Your task to perform on an android device: change the clock display to show seconds Image 0: 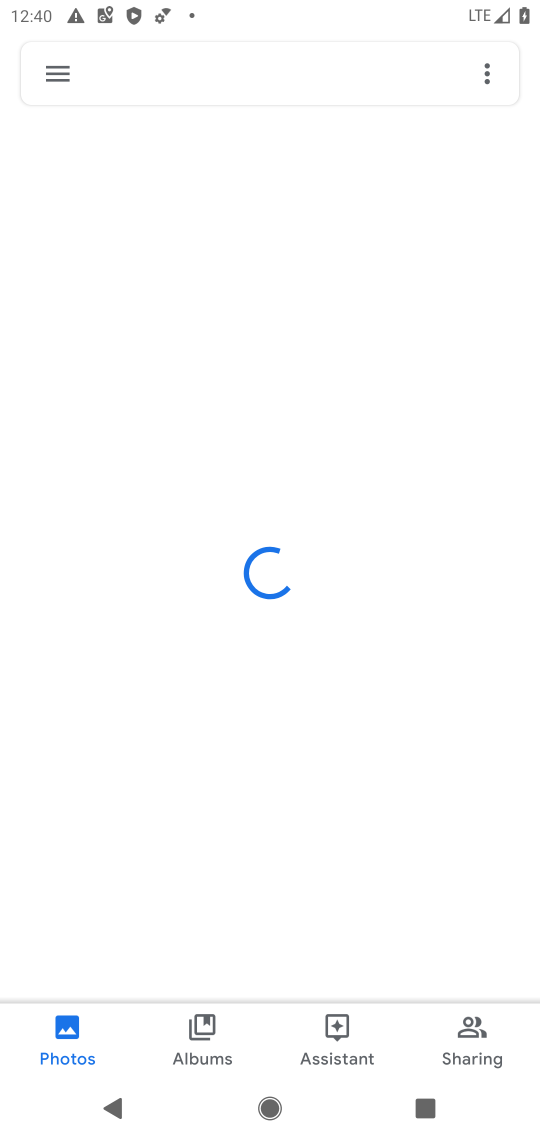
Step 0: press home button
Your task to perform on an android device: change the clock display to show seconds Image 1: 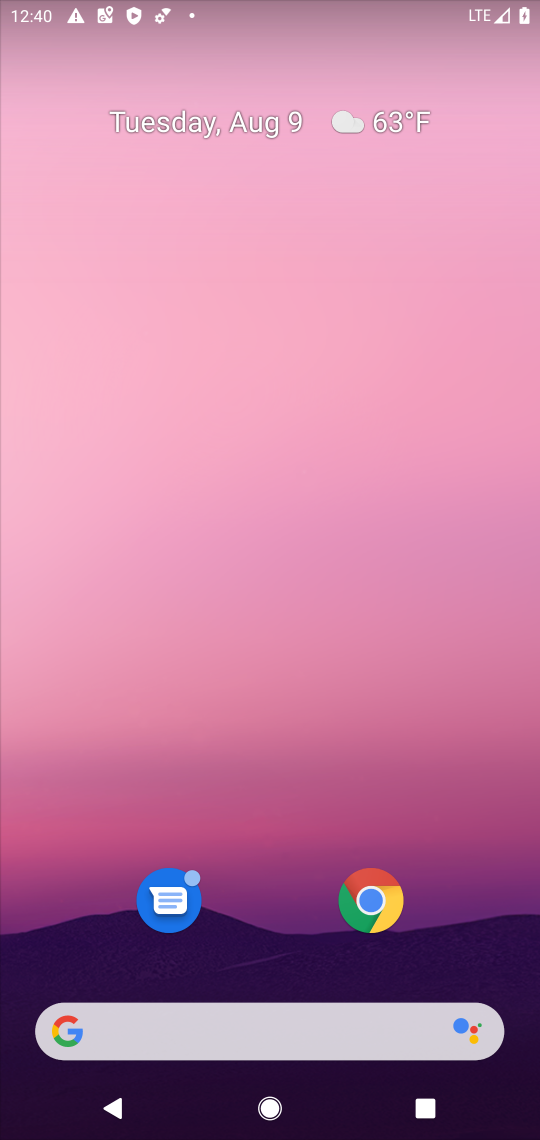
Step 1: drag from (459, 926) to (472, 235)
Your task to perform on an android device: change the clock display to show seconds Image 2: 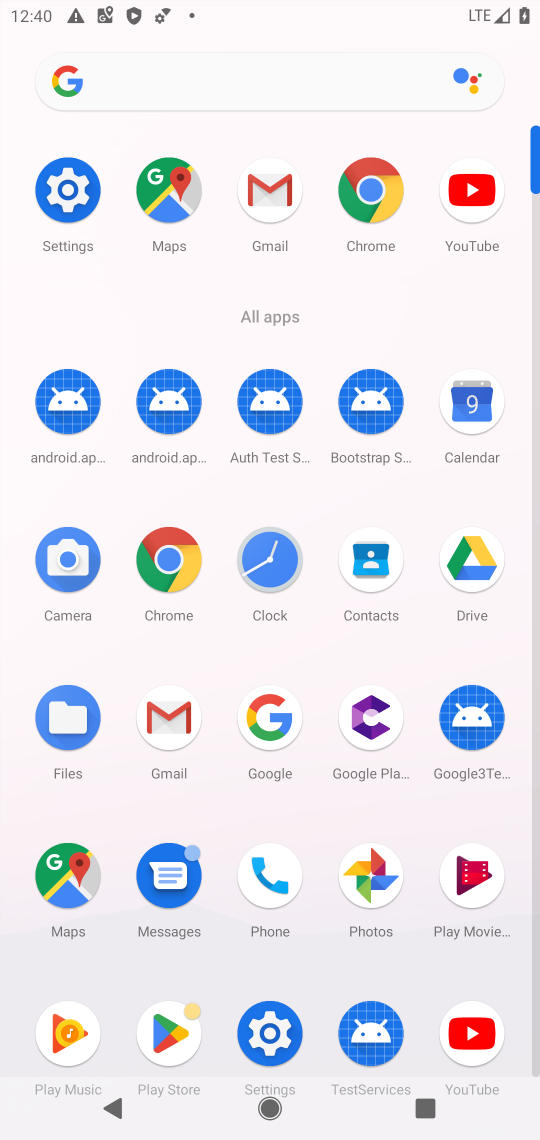
Step 2: click (272, 562)
Your task to perform on an android device: change the clock display to show seconds Image 3: 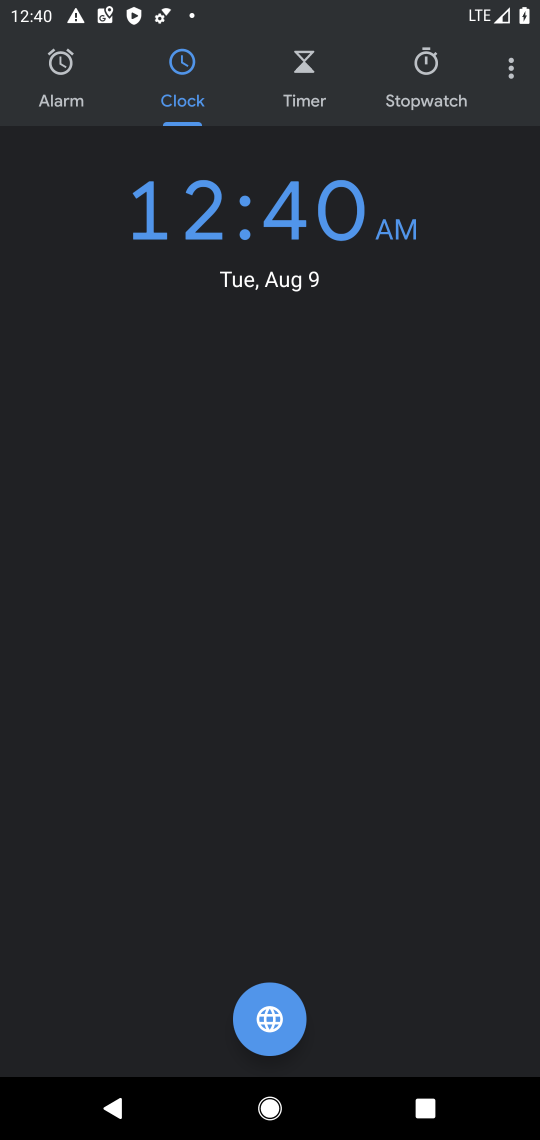
Step 3: click (513, 76)
Your task to perform on an android device: change the clock display to show seconds Image 4: 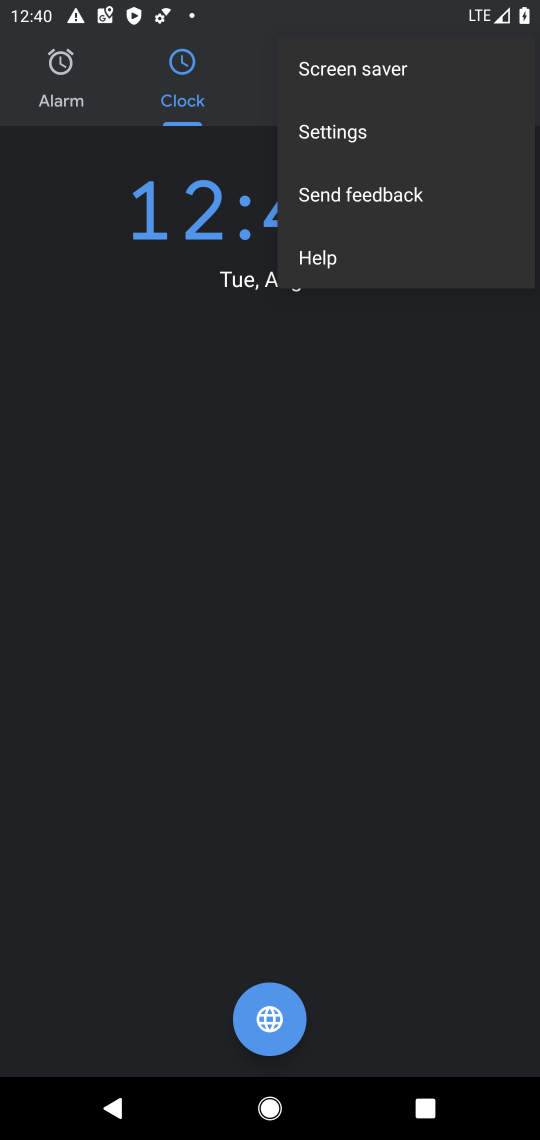
Step 4: click (382, 138)
Your task to perform on an android device: change the clock display to show seconds Image 5: 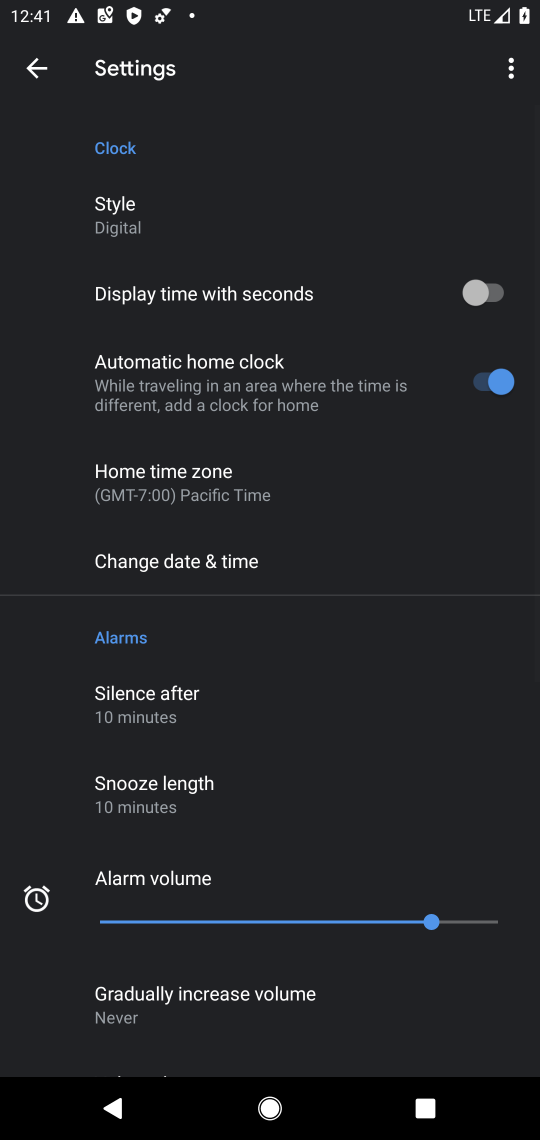
Step 5: drag from (407, 703) to (417, 402)
Your task to perform on an android device: change the clock display to show seconds Image 6: 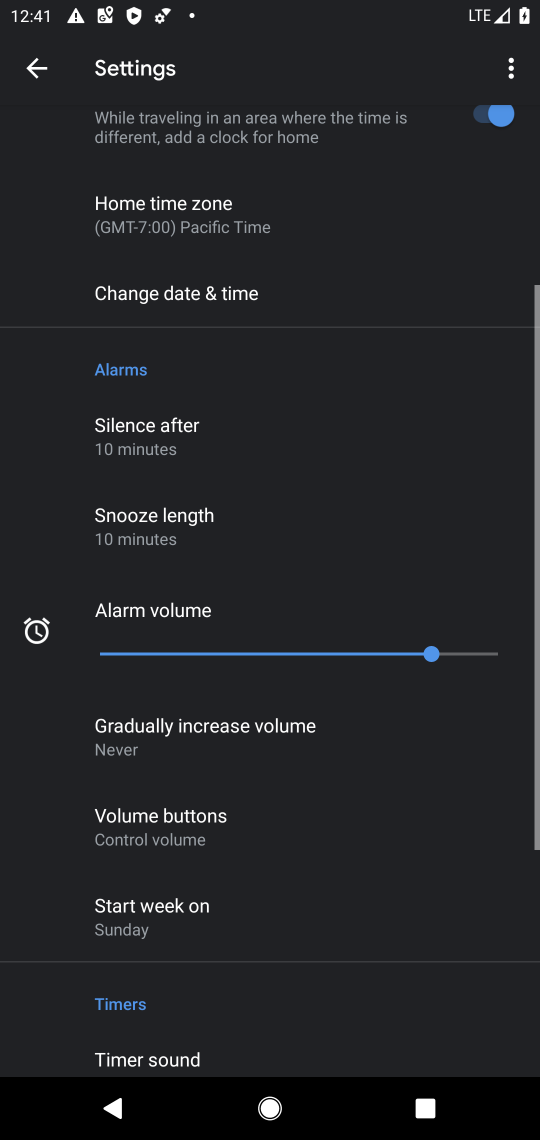
Step 6: drag from (419, 827) to (447, 530)
Your task to perform on an android device: change the clock display to show seconds Image 7: 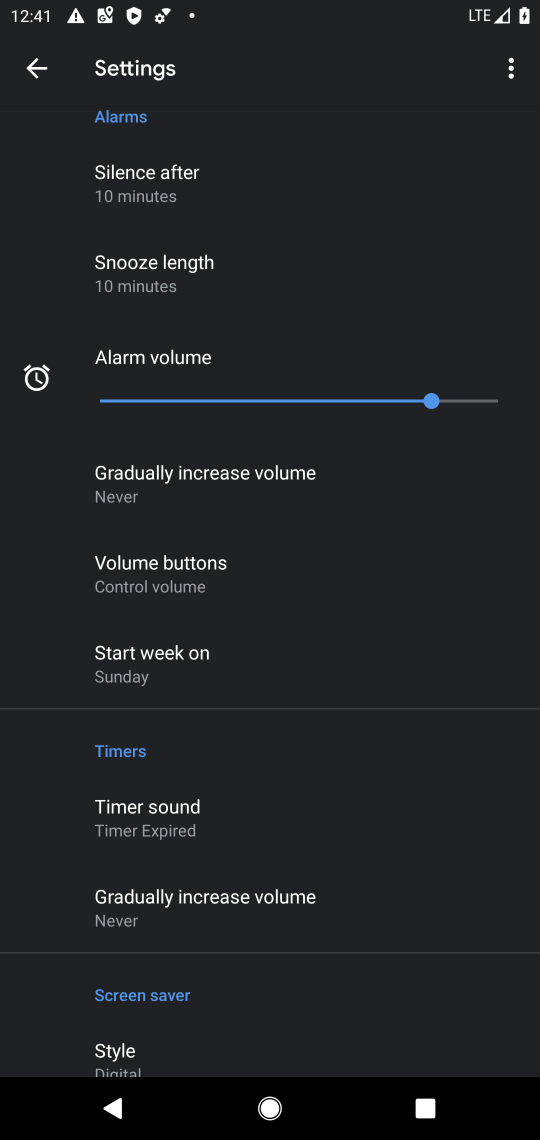
Step 7: drag from (415, 796) to (438, 551)
Your task to perform on an android device: change the clock display to show seconds Image 8: 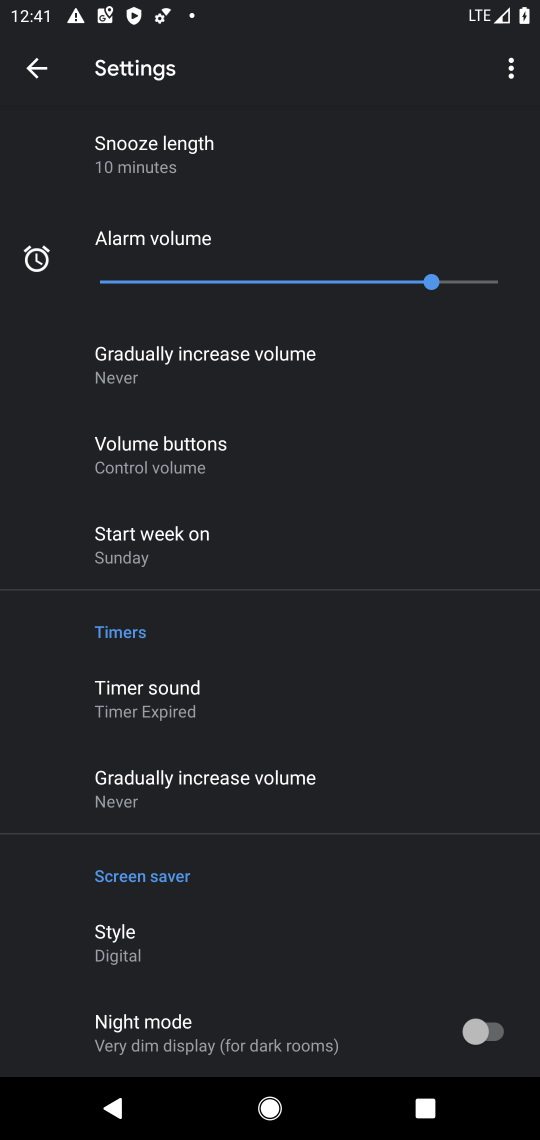
Step 8: drag from (399, 837) to (422, 582)
Your task to perform on an android device: change the clock display to show seconds Image 9: 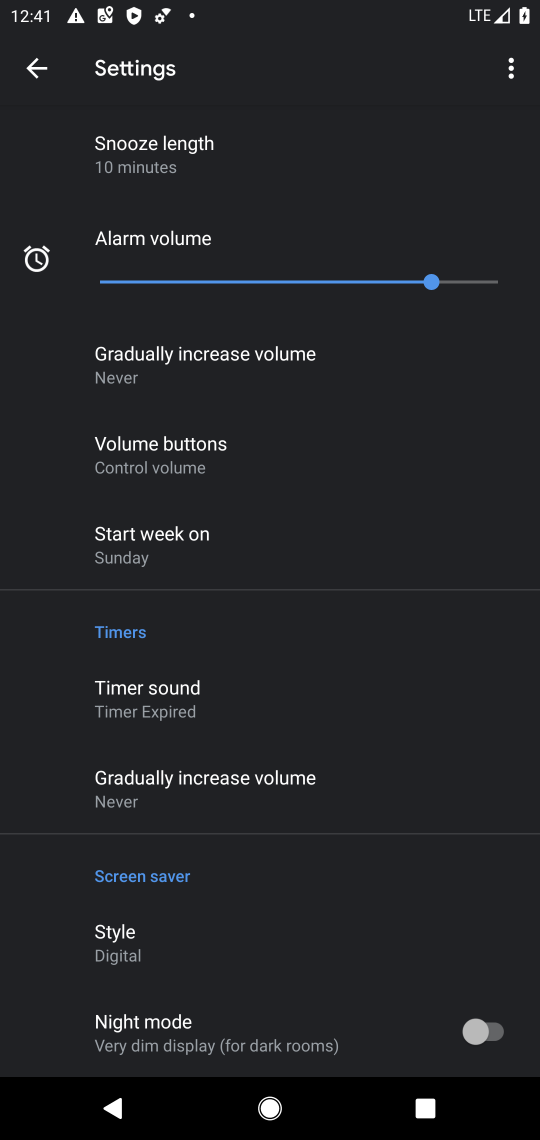
Step 9: drag from (416, 406) to (415, 614)
Your task to perform on an android device: change the clock display to show seconds Image 10: 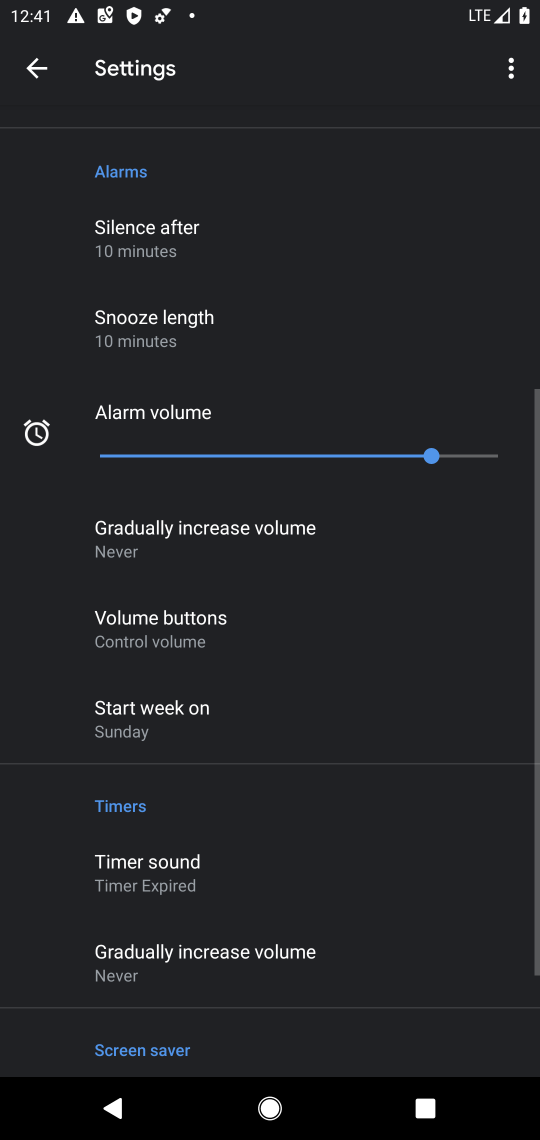
Step 10: drag from (455, 299) to (462, 511)
Your task to perform on an android device: change the clock display to show seconds Image 11: 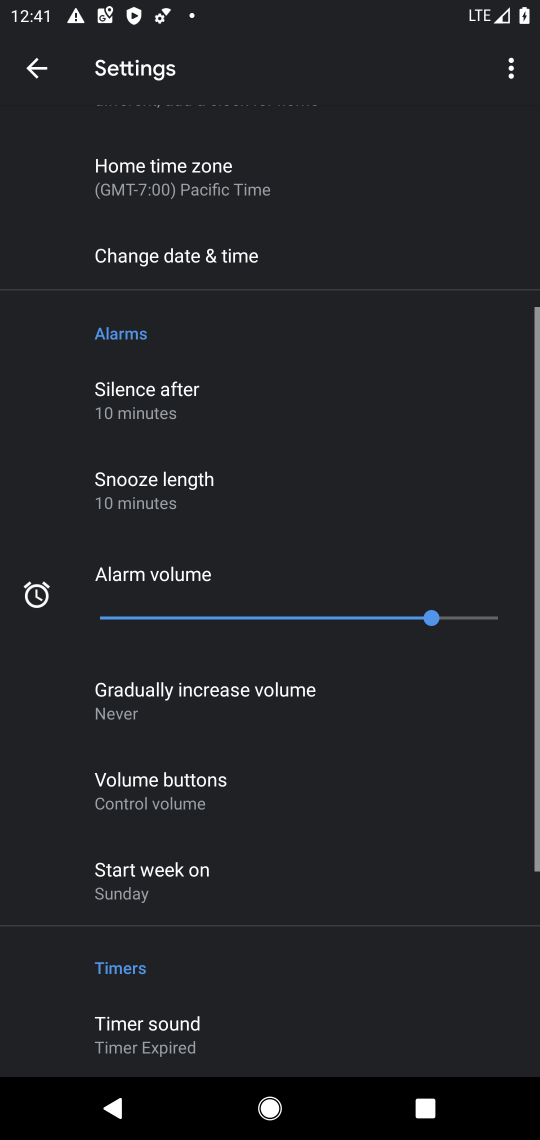
Step 11: drag from (467, 251) to (455, 478)
Your task to perform on an android device: change the clock display to show seconds Image 12: 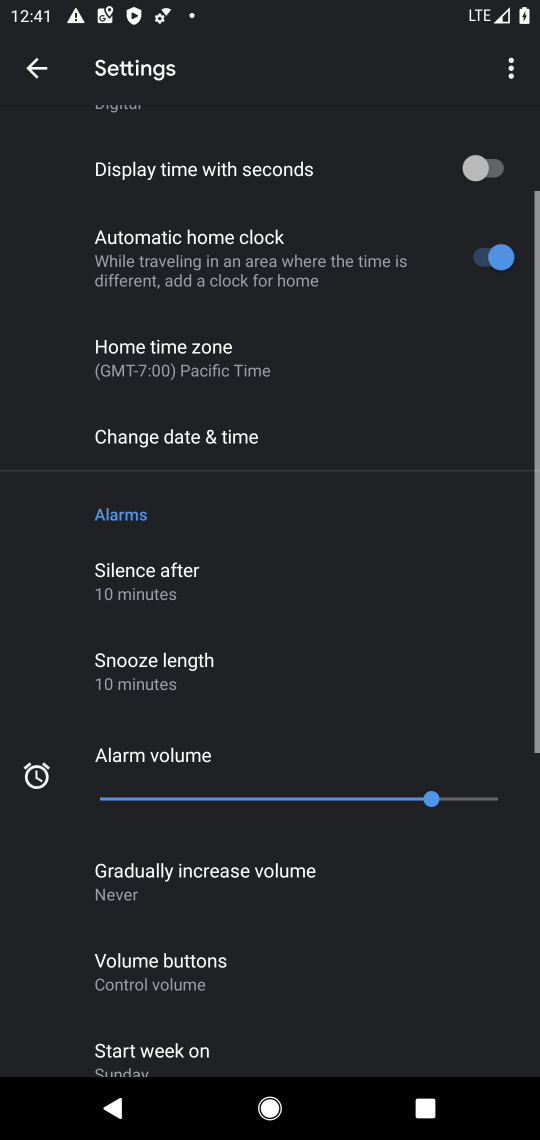
Step 12: drag from (409, 210) to (423, 491)
Your task to perform on an android device: change the clock display to show seconds Image 13: 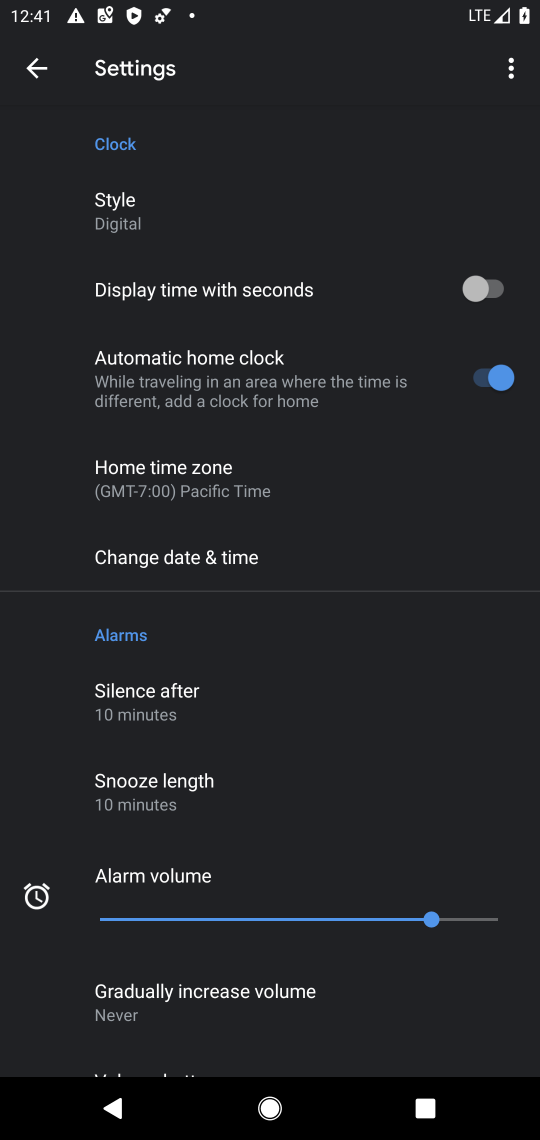
Step 13: click (467, 294)
Your task to perform on an android device: change the clock display to show seconds Image 14: 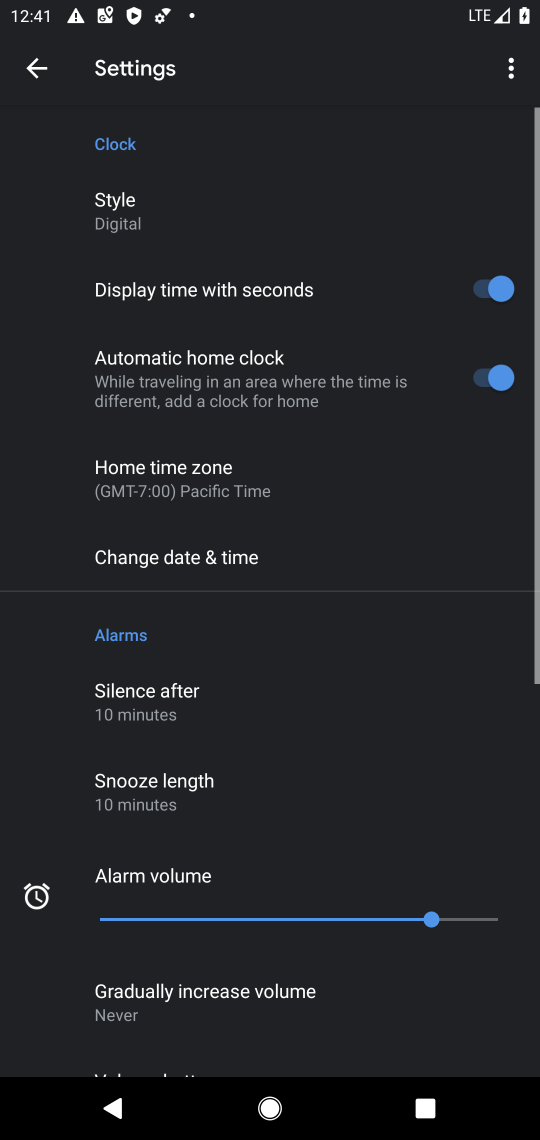
Step 14: task complete